Your task to perform on an android device: turn off picture-in-picture Image 0: 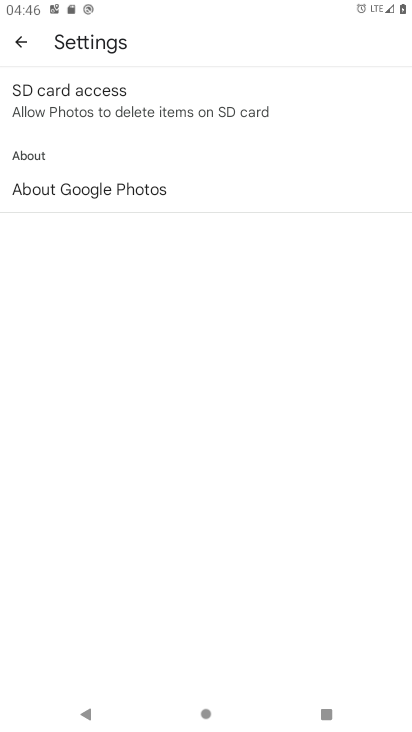
Step 0: press home button
Your task to perform on an android device: turn off picture-in-picture Image 1: 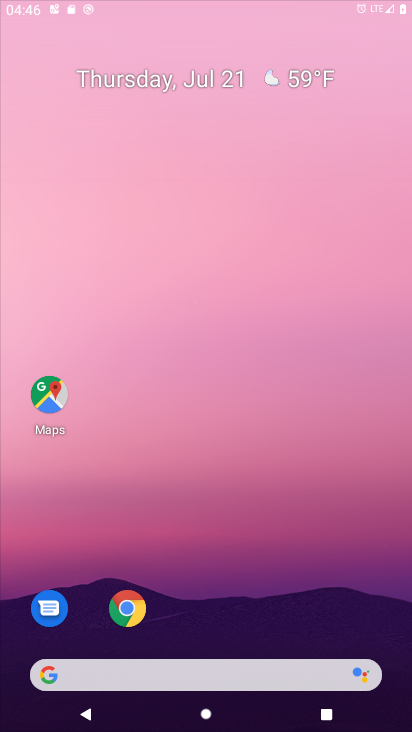
Step 1: drag from (263, 667) to (299, 11)
Your task to perform on an android device: turn off picture-in-picture Image 2: 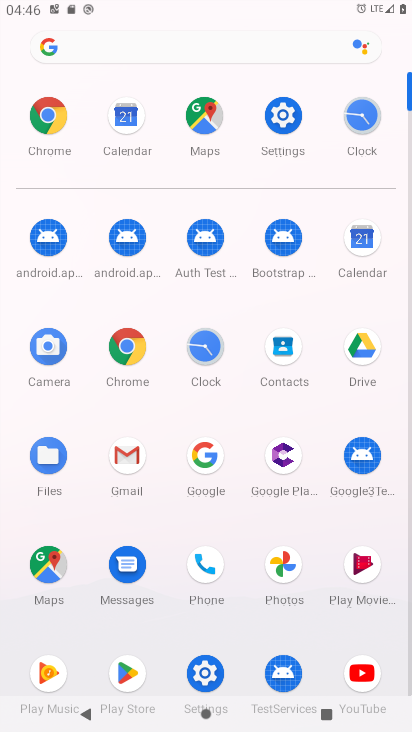
Step 2: click (275, 108)
Your task to perform on an android device: turn off picture-in-picture Image 3: 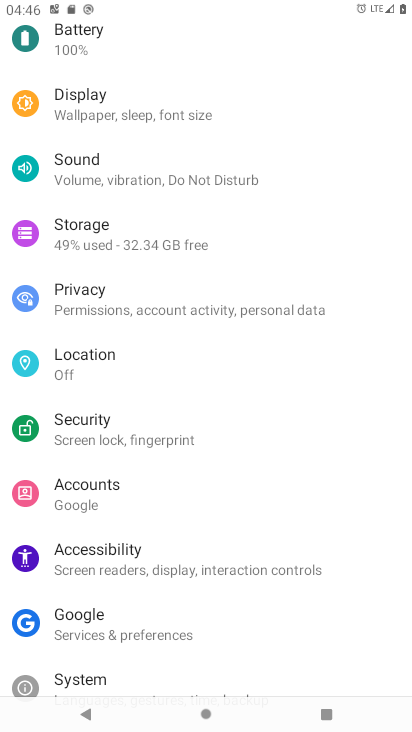
Step 3: drag from (155, 182) to (137, 525)
Your task to perform on an android device: turn off picture-in-picture Image 4: 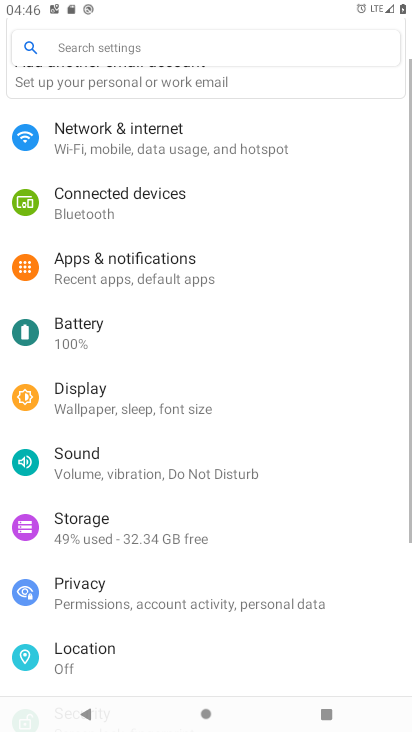
Step 4: drag from (124, 634) to (62, 704)
Your task to perform on an android device: turn off picture-in-picture Image 5: 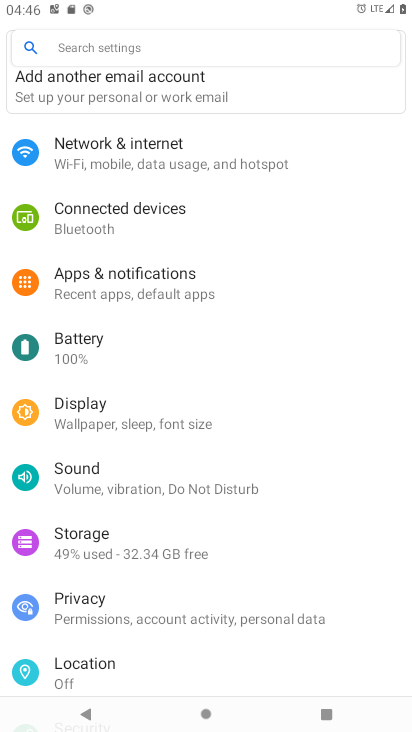
Step 5: click (175, 286)
Your task to perform on an android device: turn off picture-in-picture Image 6: 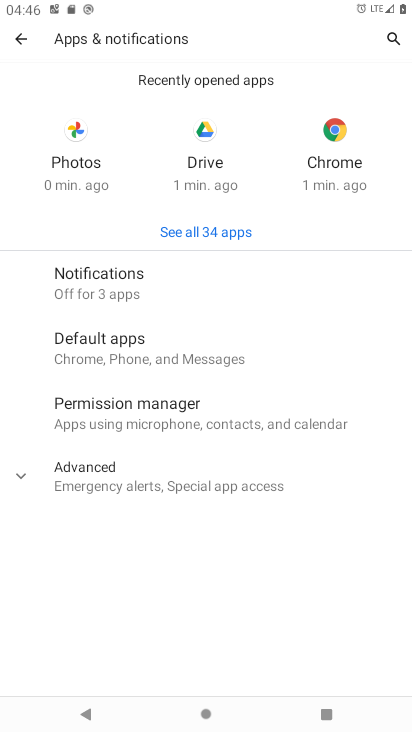
Step 6: click (157, 479)
Your task to perform on an android device: turn off picture-in-picture Image 7: 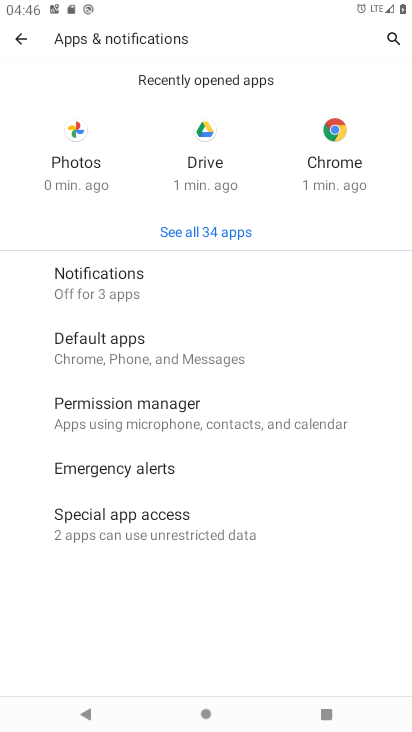
Step 7: click (141, 522)
Your task to perform on an android device: turn off picture-in-picture Image 8: 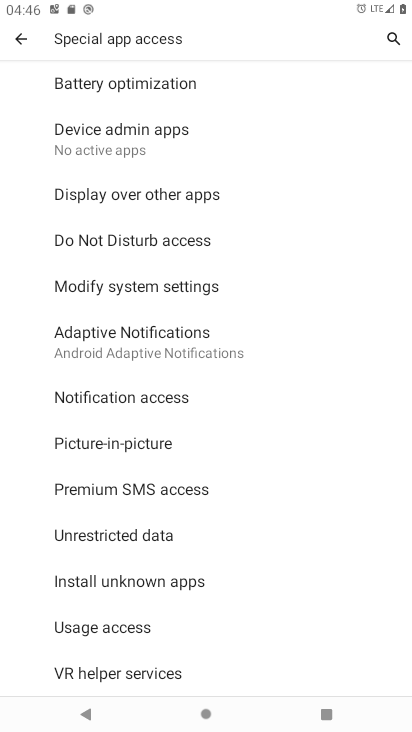
Step 8: click (139, 442)
Your task to perform on an android device: turn off picture-in-picture Image 9: 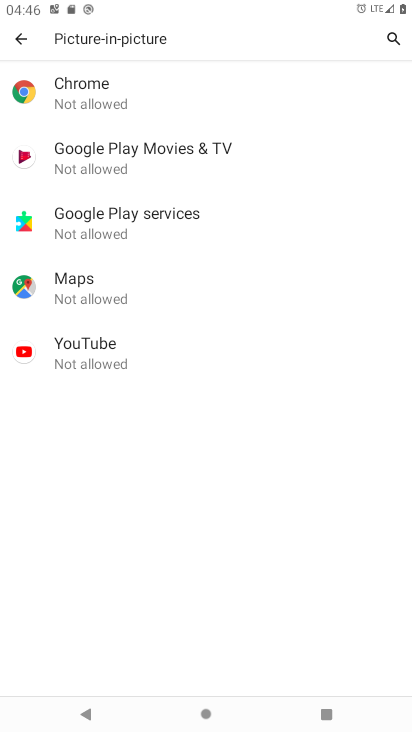
Step 9: task complete